Your task to perform on an android device: add a label to a message in the gmail app Image 0: 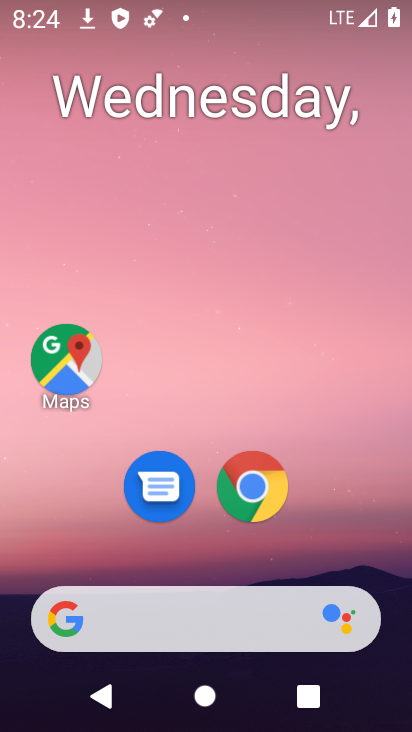
Step 0: drag from (215, 539) to (293, 9)
Your task to perform on an android device: add a label to a message in the gmail app Image 1: 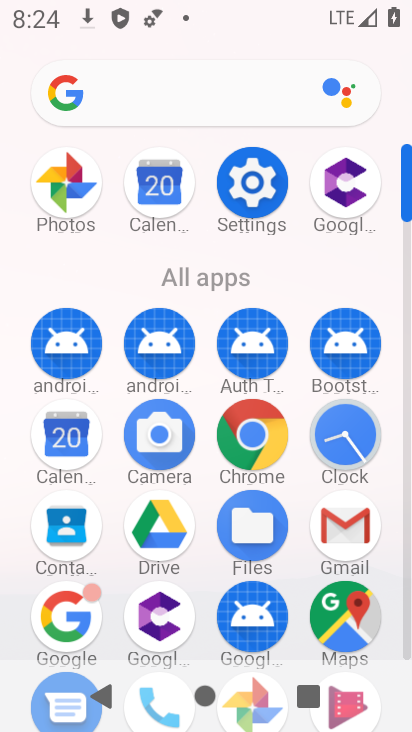
Step 1: click (344, 509)
Your task to perform on an android device: add a label to a message in the gmail app Image 2: 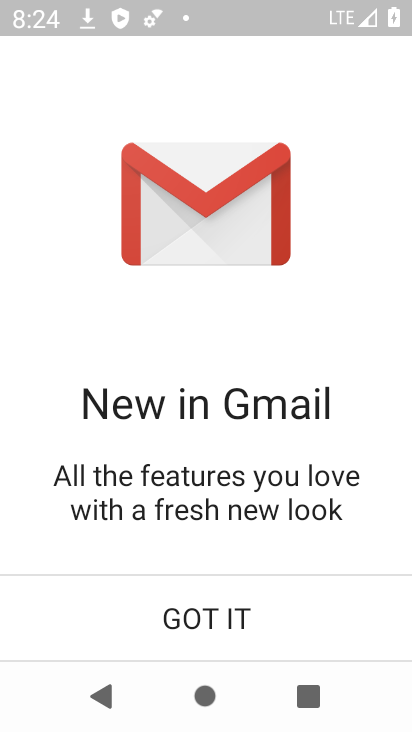
Step 2: click (214, 609)
Your task to perform on an android device: add a label to a message in the gmail app Image 3: 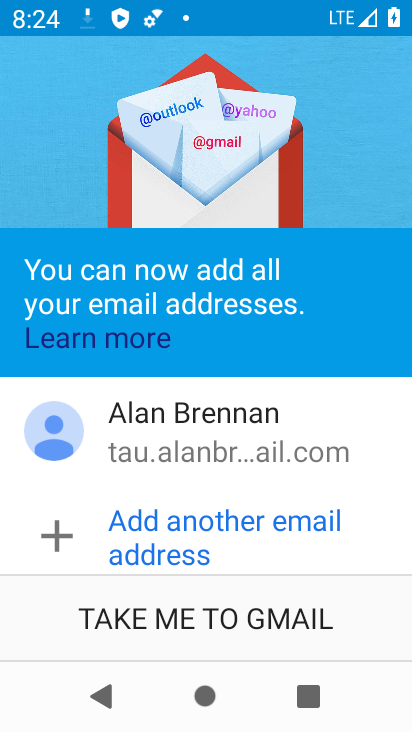
Step 3: click (226, 610)
Your task to perform on an android device: add a label to a message in the gmail app Image 4: 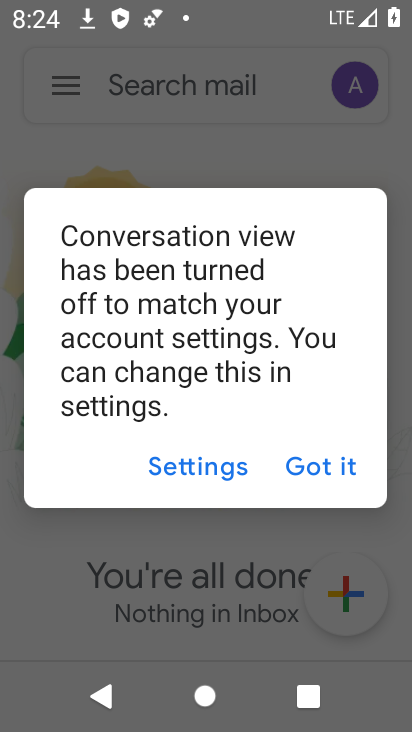
Step 4: click (308, 448)
Your task to perform on an android device: add a label to a message in the gmail app Image 5: 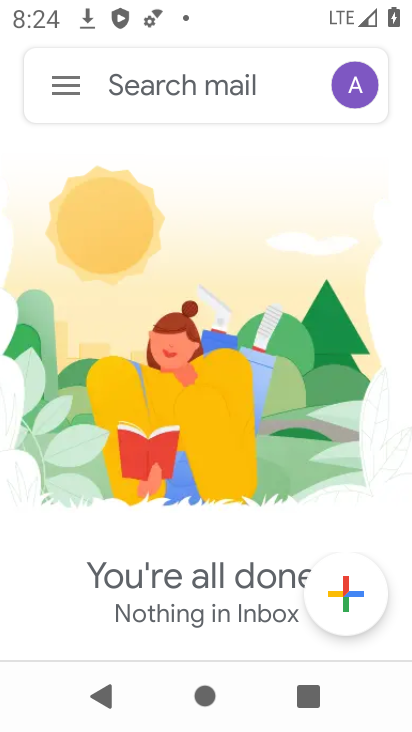
Step 5: click (58, 80)
Your task to perform on an android device: add a label to a message in the gmail app Image 6: 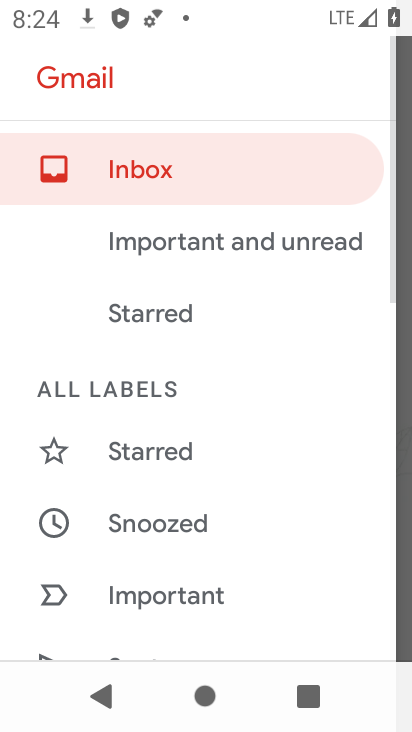
Step 6: drag from (187, 581) to (267, 67)
Your task to perform on an android device: add a label to a message in the gmail app Image 7: 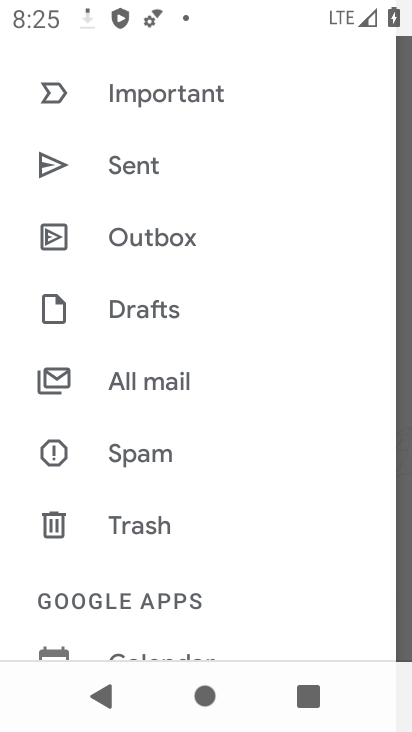
Step 7: click (199, 383)
Your task to perform on an android device: add a label to a message in the gmail app Image 8: 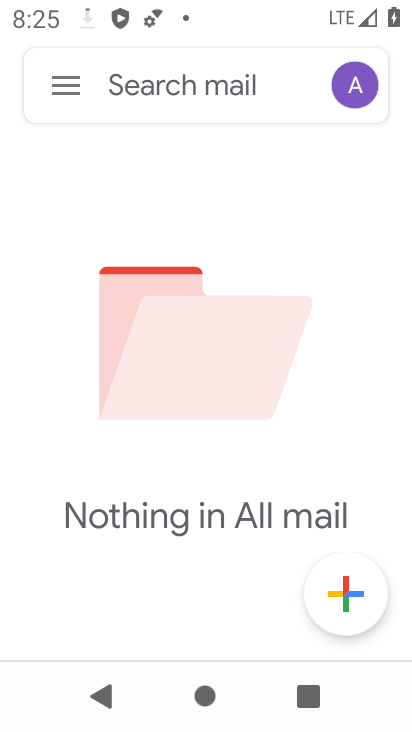
Step 8: task complete